Your task to perform on an android device: Go to Reddit.com Image 0: 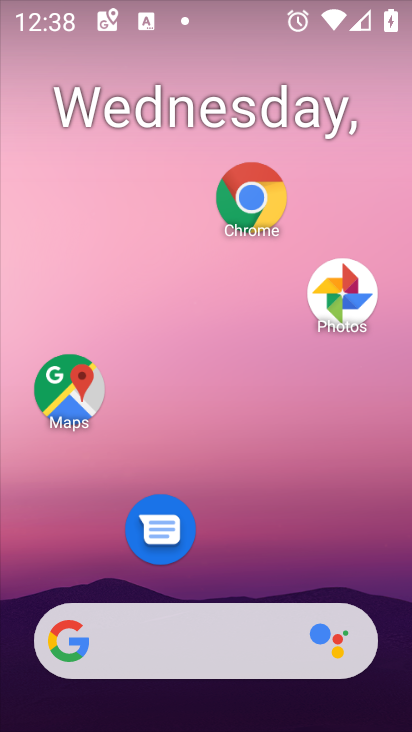
Step 0: drag from (221, 695) to (253, 185)
Your task to perform on an android device: Go to Reddit.com Image 1: 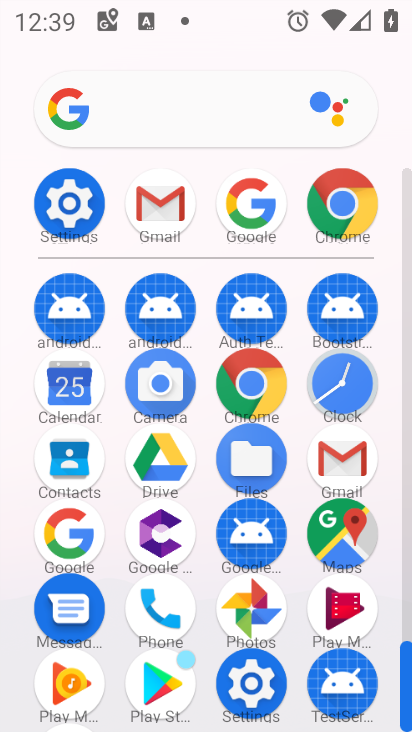
Step 1: click (354, 229)
Your task to perform on an android device: Go to Reddit.com Image 2: 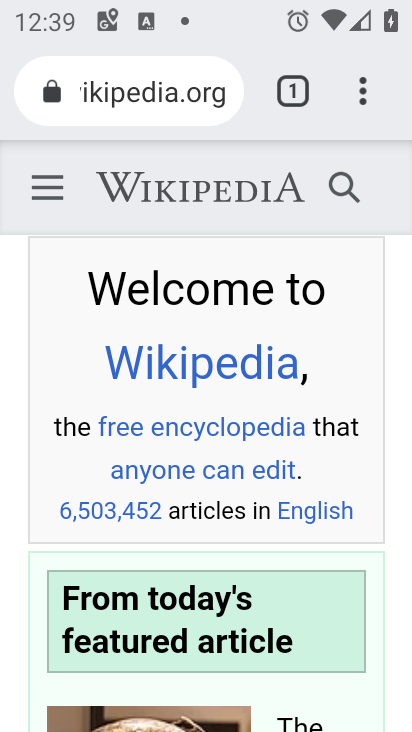
Step 2: click (211, 103)
Your task to perform on an android device: Go to Reddit.com Image 3: 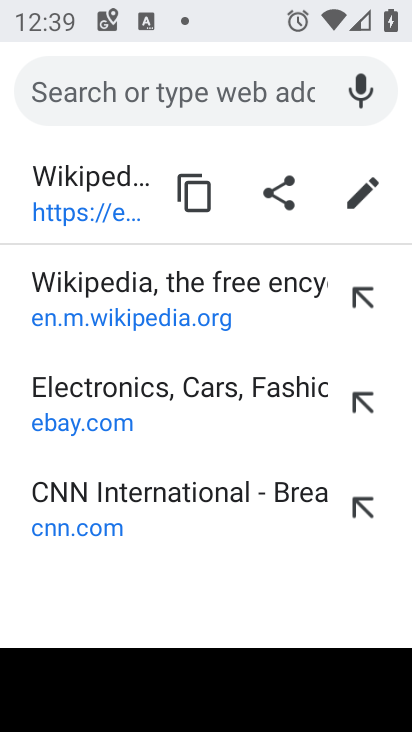
Step 3: click (188, 98)
Your task to perform on an android device: Go to Reddit.com Image 4: 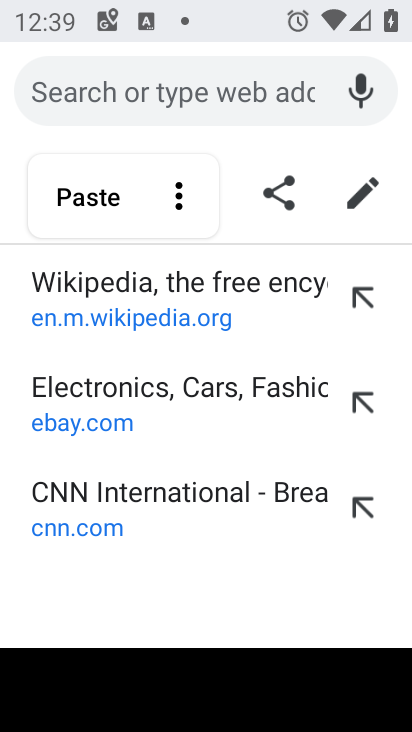
Step 4: type "reddit"
Your task to perform on an android device: Go to Reddit.com Image 5: 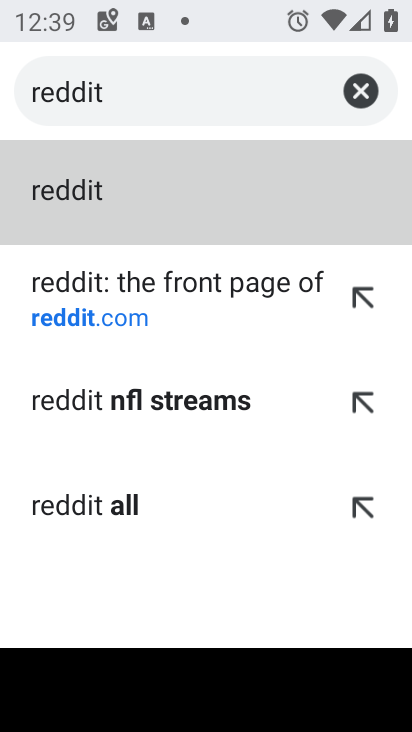
Step 5: click (161, 315)
Your task to perform on an android device: Go to Reddit.com Image 6: 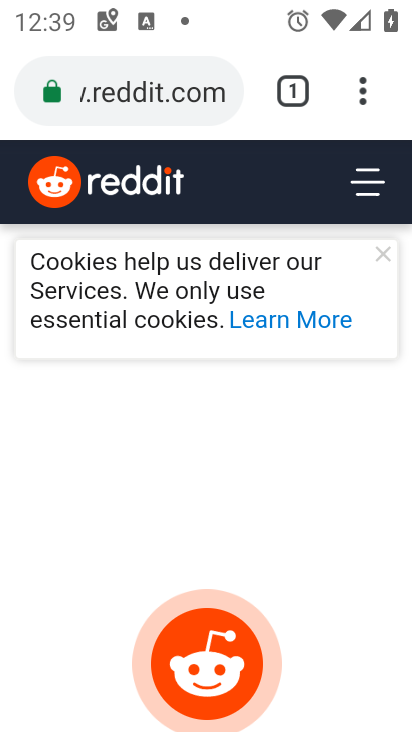
Step 6: task complete